Your task to perform on an android device: Open settings on Google Maps Image 0: 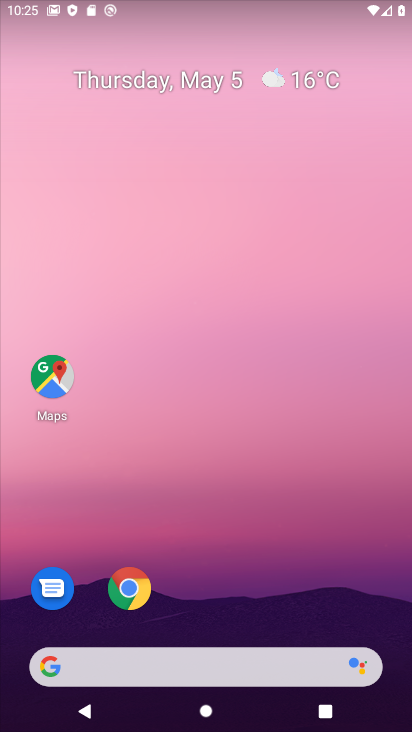
Step 0: drag from (348, 587) to (336, 348)
Your task to perform on an android device: Open settings on Google Maps Image 1: 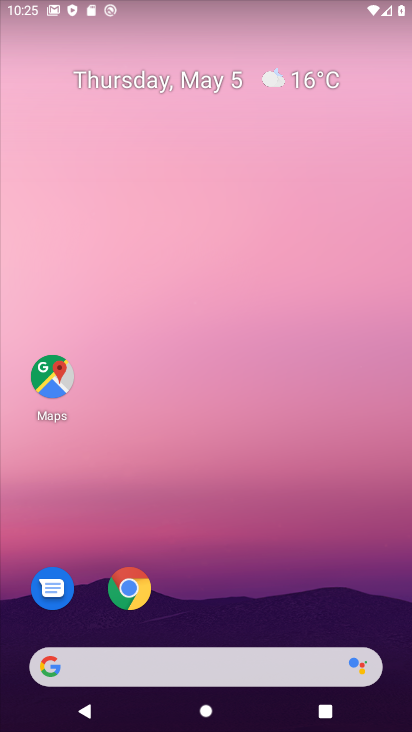
Step 1: drag from (303, 460) to (295, 248)
Your task to perform on an android device: Open settings on Google Maps Image 2: 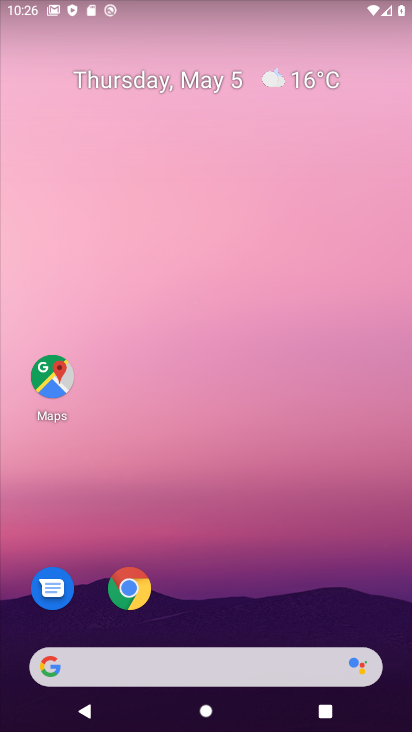
Step 2: drag from (221, 611) to (158, 26)
Your task to perform on an android device: Open settings on Google Maps Image 3: 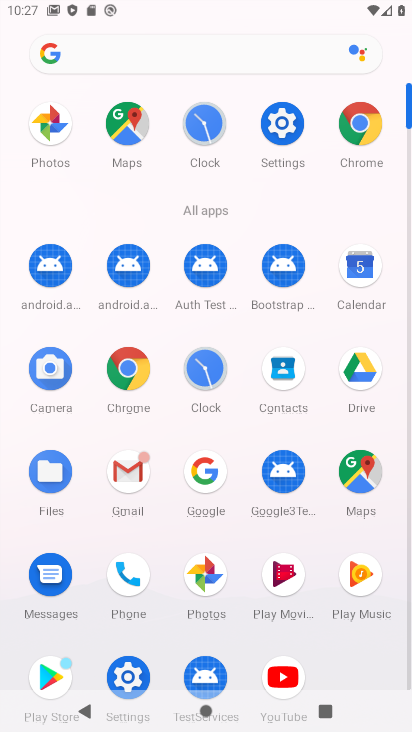
Step 3: click (363, 476)
Your task to perform on an android device: Open settings on Google Maps Image 4: 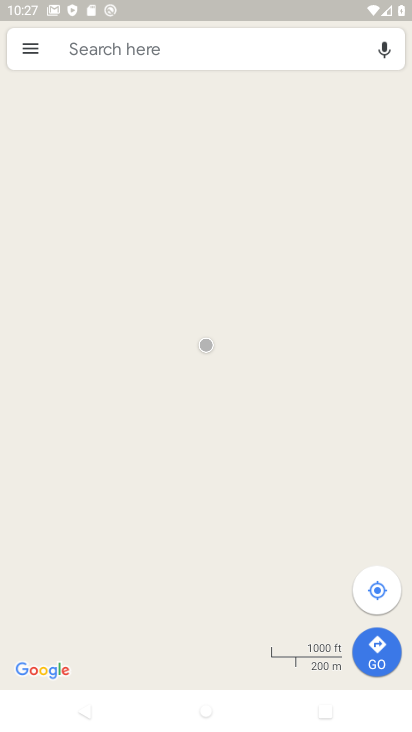
Step 4: click (24, 50)
Your task to perform on an android device: Open settings on Google Maps Image 5: 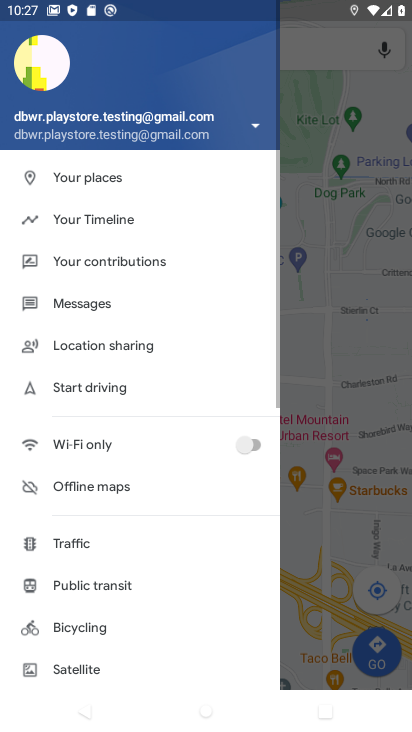
Step 5: drag from (110, 612) to (269, 16)
Your task to perform on an android device: Open settings on Google Maps Image 6: 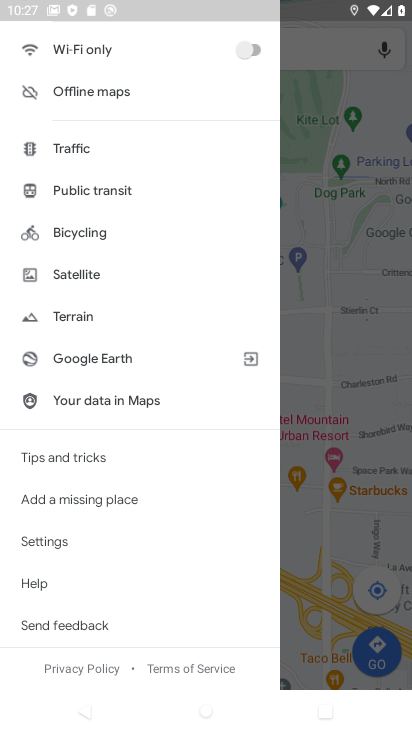
Step 6: click (44, 539)
Your task to perform on an android device: Open settings on Google Maps Image 7: 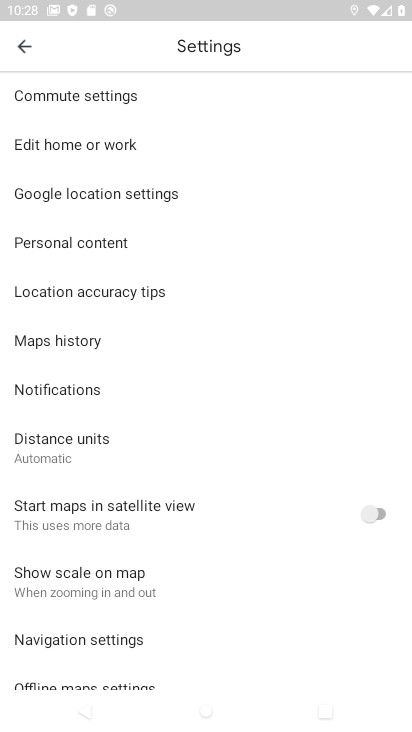
Step 7: task complete